Your task to perform on an android device: delete a single message in the gmail app Image 0: 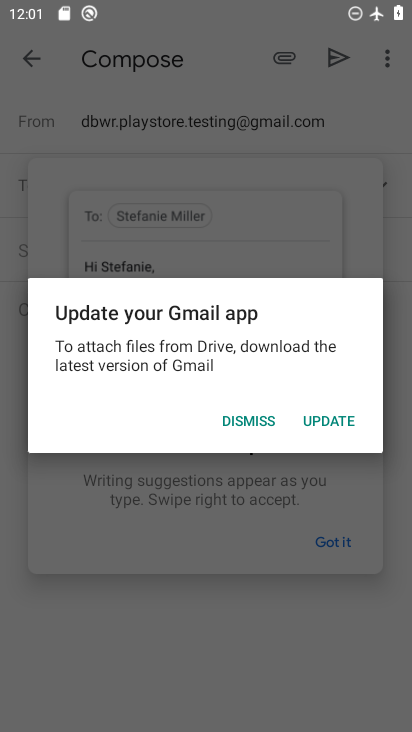
Step 0: press home button
Your task to perform on an android device: delete a single message in the gmail app Image 1: 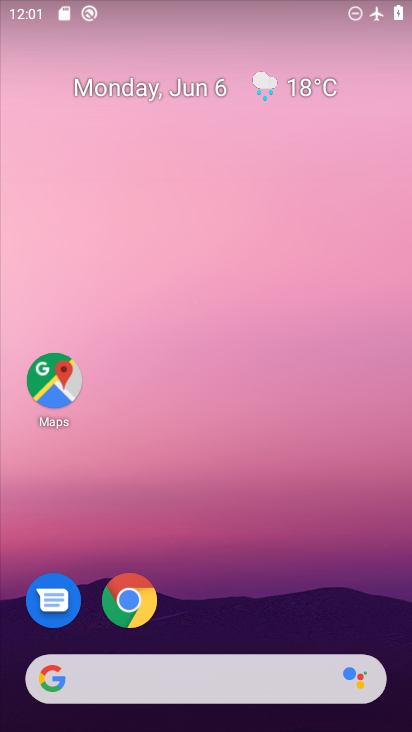
Step 1: drag from (242, 626) to (243, 204)
Your task to perform on an android device: delete a single message in the gmail app Image 2: 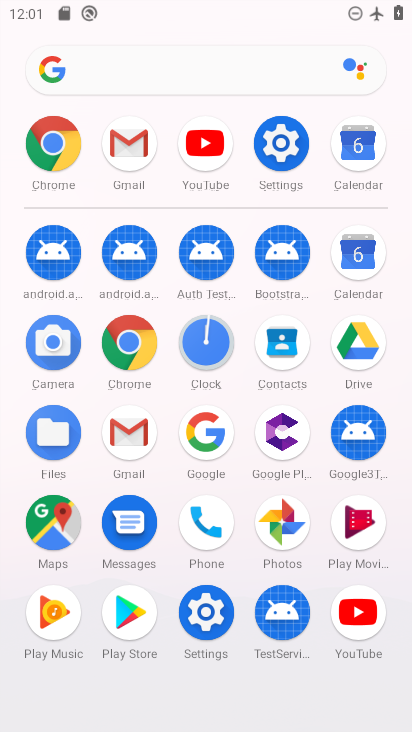
Step 2: click (146, 145)
Your task to perform on an android device: delete a single message in the gmail app Image 3: 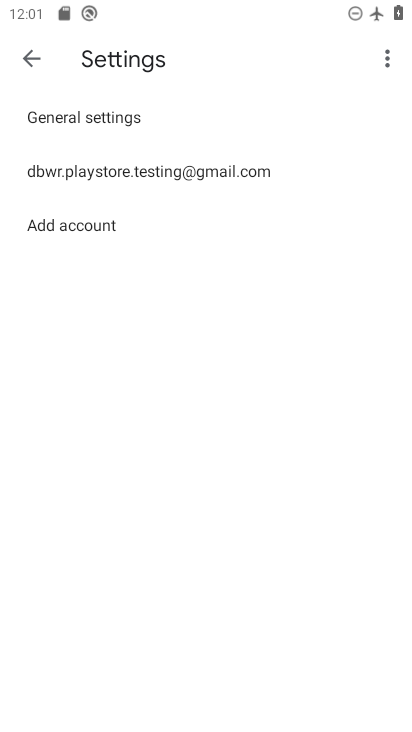
Step 3: click (22, 58)
Your task to perform on an android device: delete a single message in the gmail app Image 4: 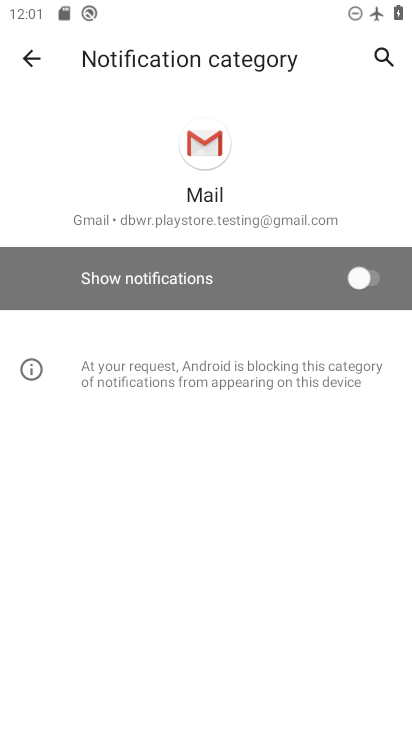
Step 4: click (25, 51)
Your task to perform on an android device: delete a single message in the gmail app Image 5: 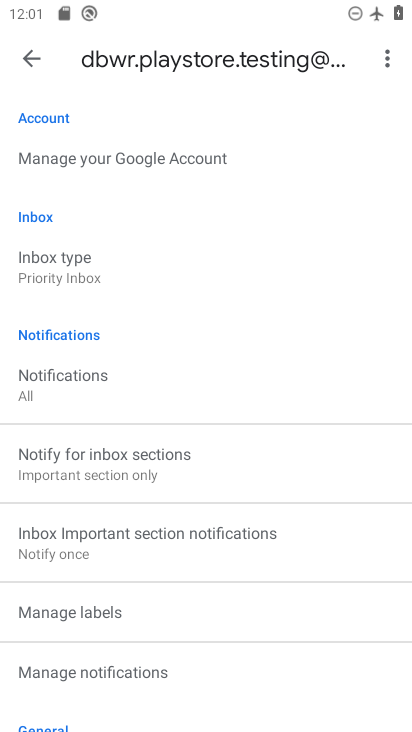
Step 5: drag from (226, 254) to (229, 598)
Your task to perform on an android device: delete a single message in the gmail app Image 6: 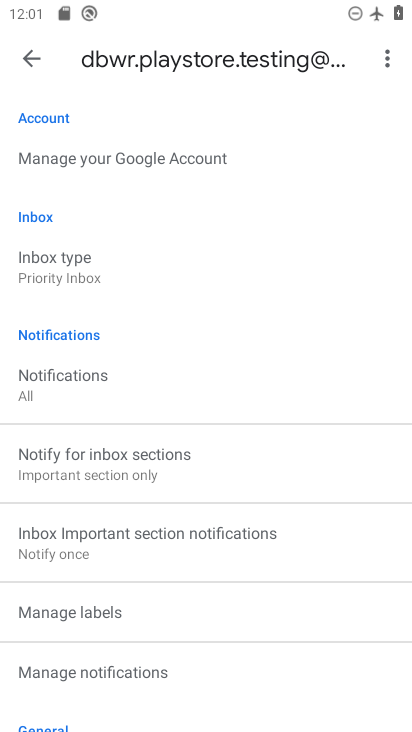
Step 6: click (31, 70)
Your task to perform on an android device: delete a single message in the gmail app Image 7: 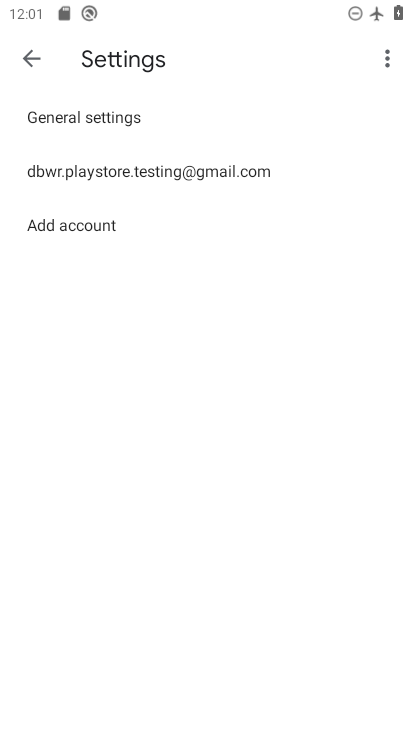
Step 7: click (31, 70)
Your task to perform on an android device: delete a single message in the gmail app Image 8: 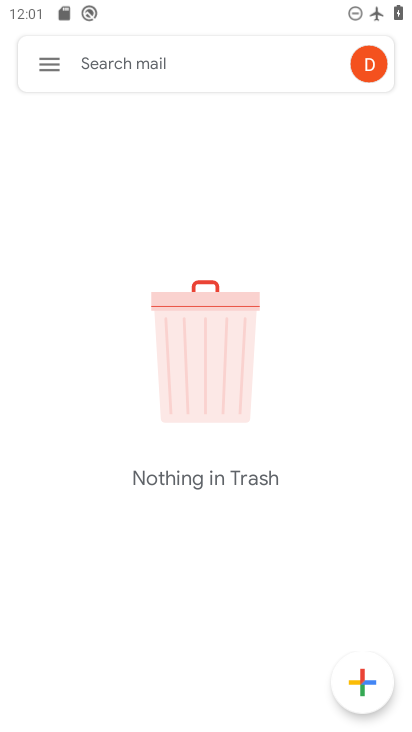
Step 8: click (41, 73)
Your task to perform on an android device: delete a single message in the gmail app Image 9: 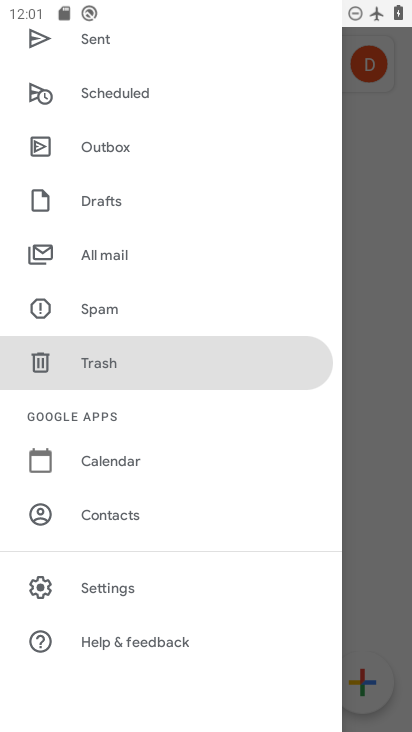
Step 9: click (124, 239)
Your task to perform on an android device: delete a single message in the gmail app Image 10: 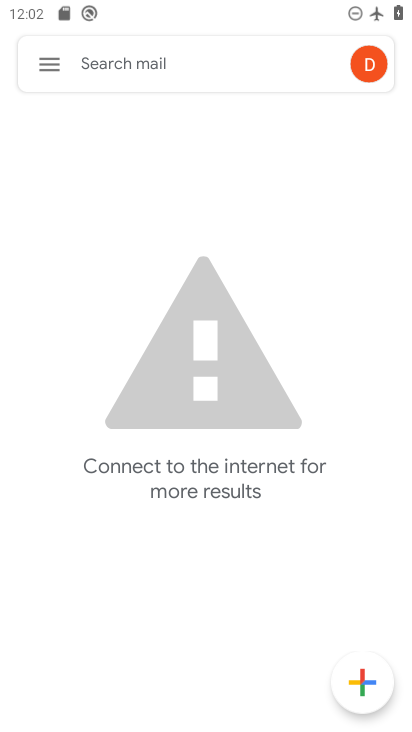
Step 10: task complete